Your task to perform on an android device: set default search engine in the chrome app Image 0: 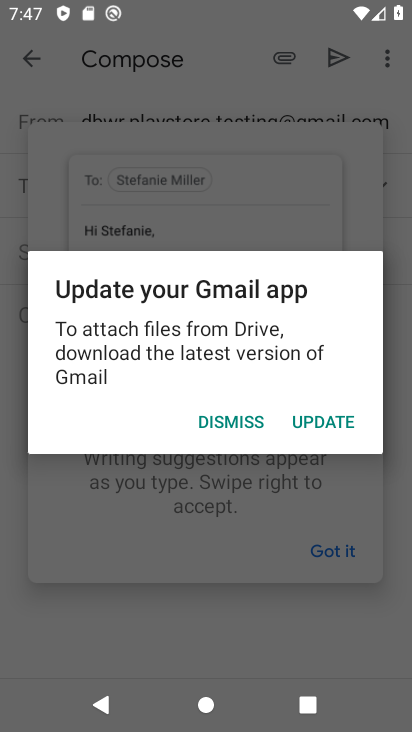
Step 0: press home button
Your task to perform on an android device: set default search engine in the chrome app Image 1: 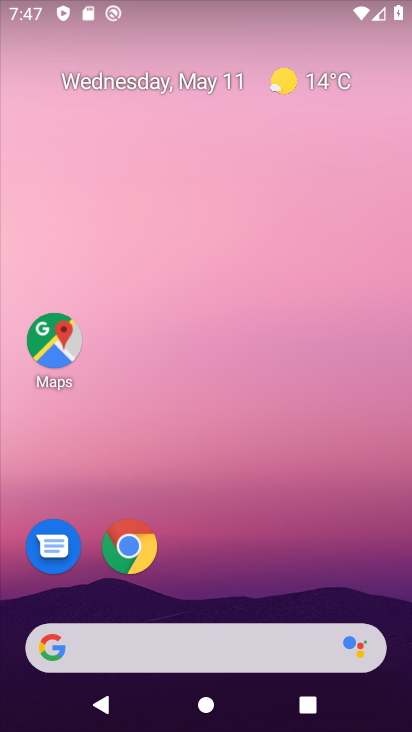
Step 1: press home button
Your task to perform on an android device: set default search engine in the chrome app Image 2: 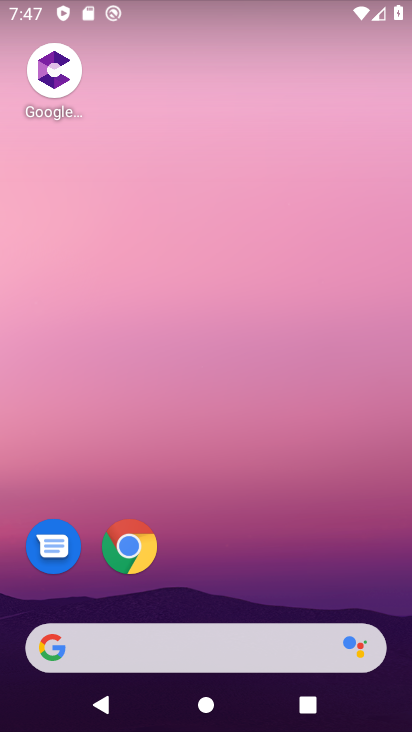
Step 2: click (126, 576)
Your task to perform on an android device: set default search engine in the chrome app Image 3: 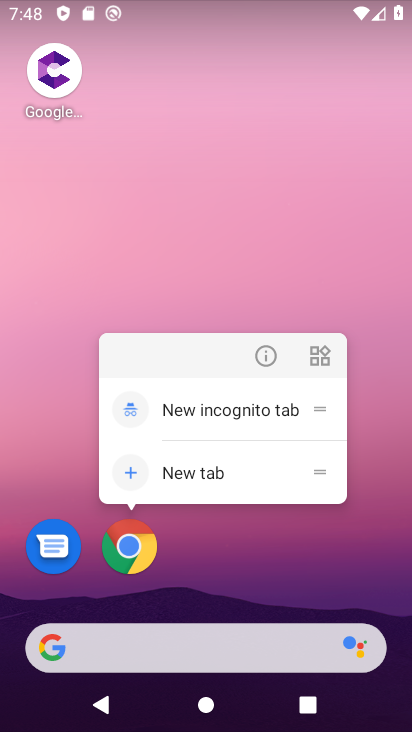
Step 3: click (120, 538)
Your task to perform on an android device: set default search engine in the chrome app Image 4: 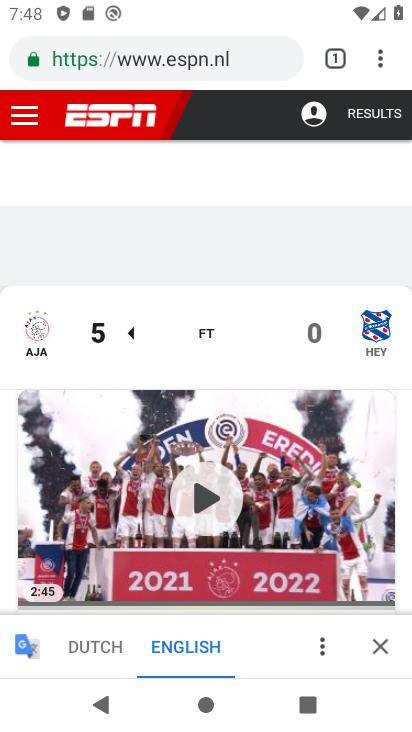
Step 4: click (382, 58)
Your task to perform on an android device: set default search engine in the chrome app Image 5: 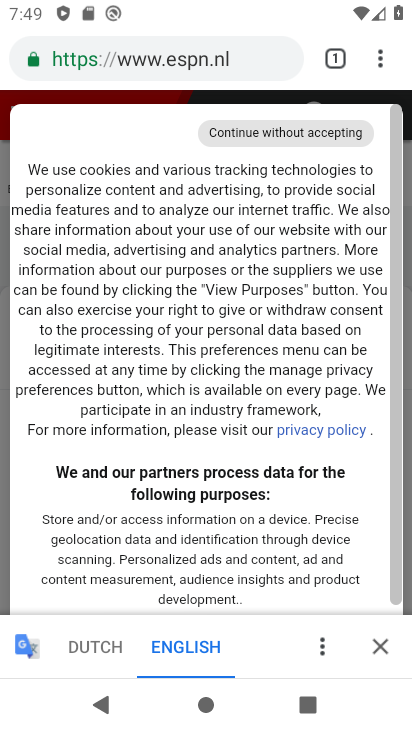
Step 5: drag from (375, 61) to (228, 569)
Your task to perform on an android device: set default search engine in the chrome app Image 6: 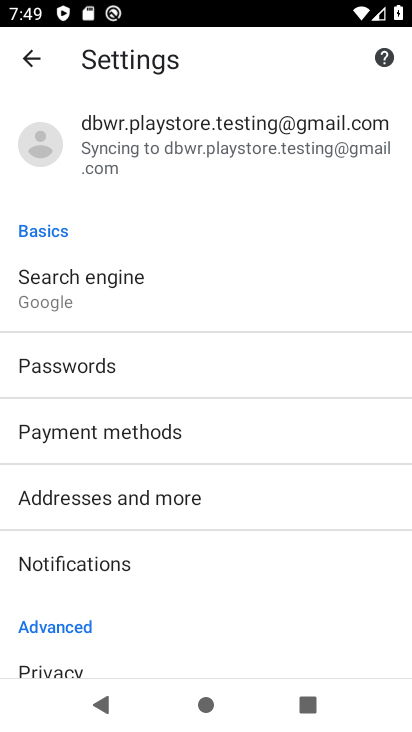
Step 6: click (68, 299)
Your task to perform on an android device: set default search engine in the chrome app Image 7: 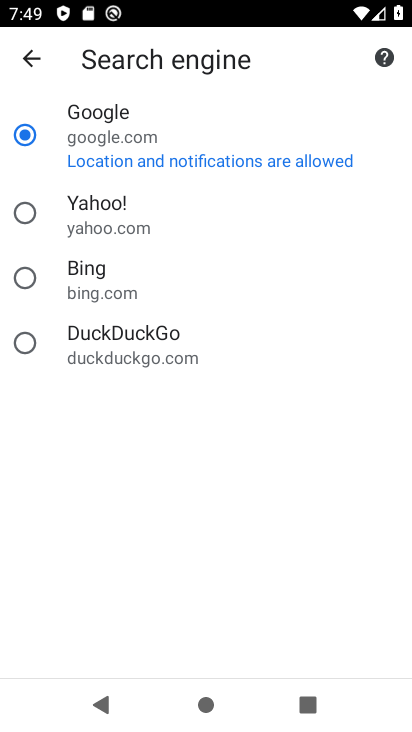
Step 7: click (91, 210)
Your task to perform on an android device: set default search engine in the chrome app Image 8: 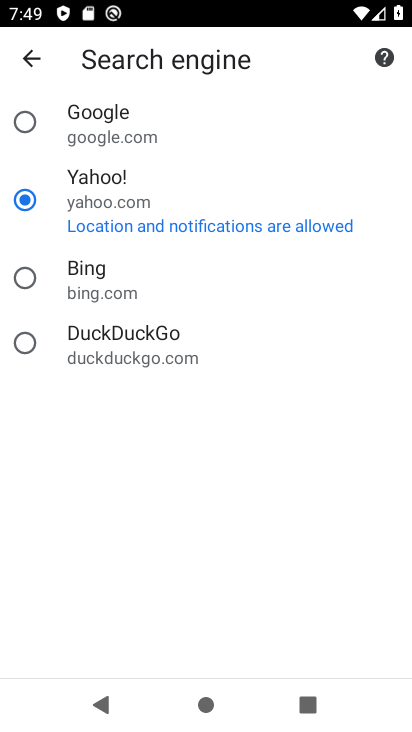
Step 8: task complete